Your task to perform on an android device: install app "Chime – Mobile Banking" Image 0: 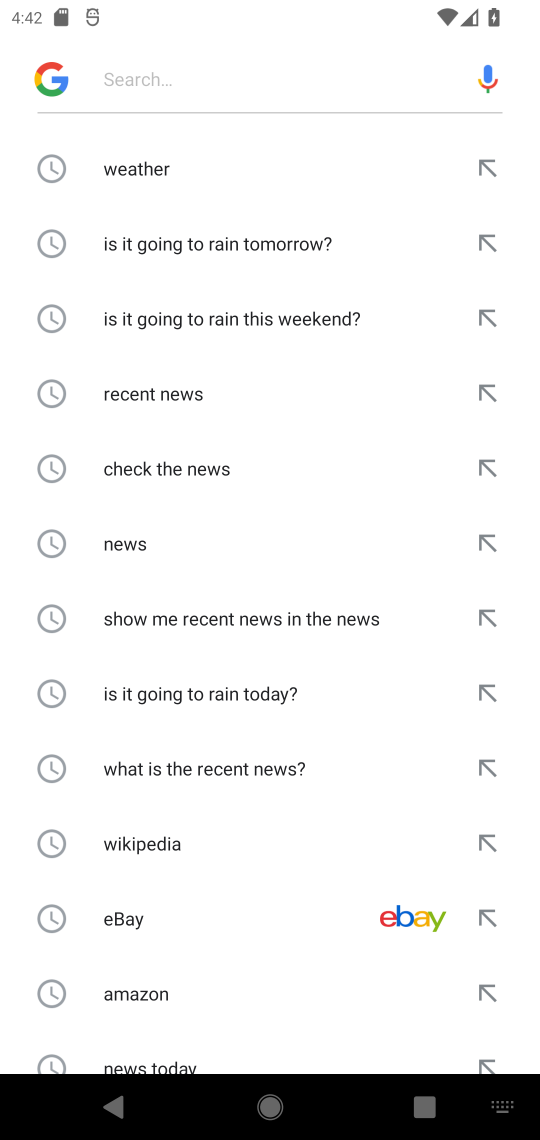
Step 0: press home button
Your task to perform on an android device: install app "Chime – Mobile Banking" Image 1: 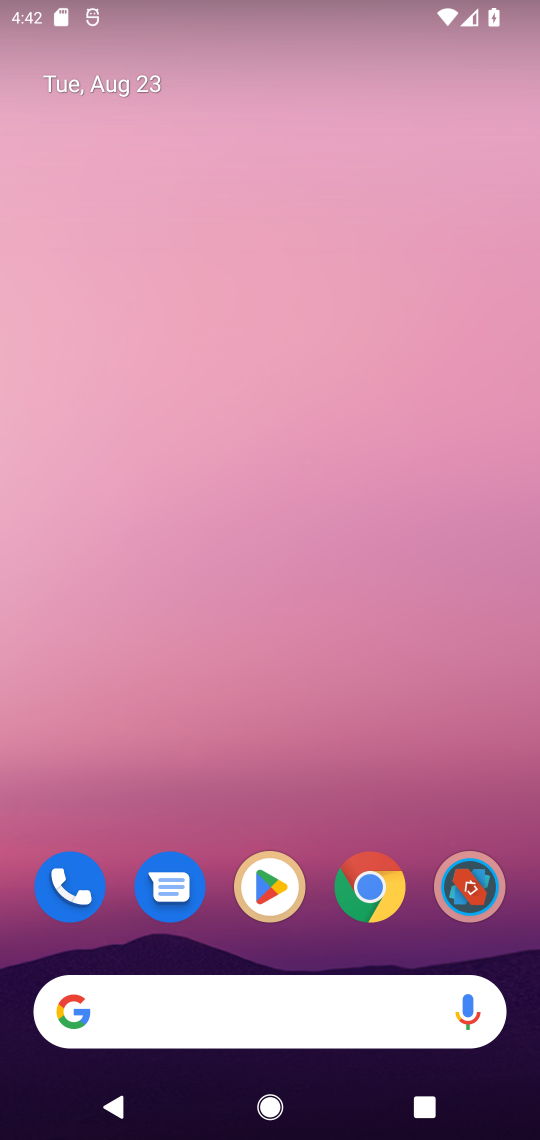
Step 1: click (274, 883)
Your task to perform on an android device: install app "Chime – Mobile Banking" Image 2: 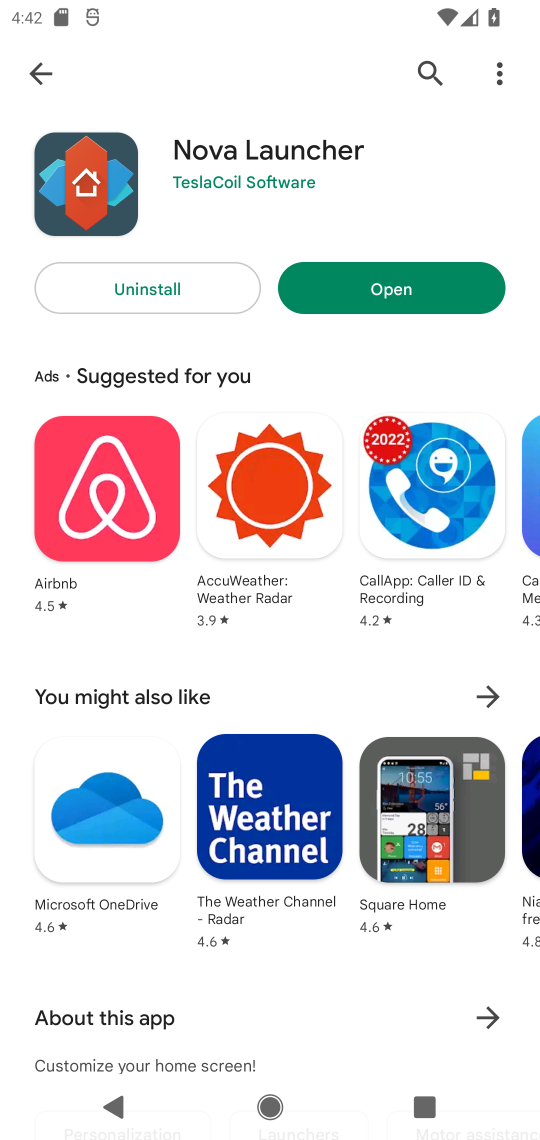
Step 2: click (33, 82)
Your task to perform on an android device: install app "Chime – Mobile Banking" Image 3: 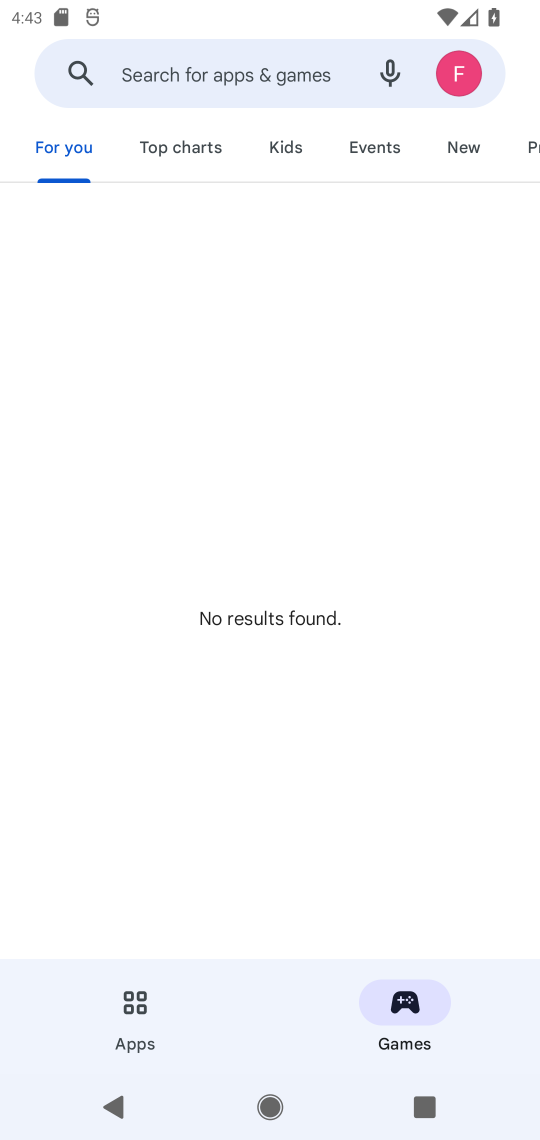
Step 3: click (196, 71)
Your task to perform on an android device: install app "Chime – Mobile Banking" Image 4: 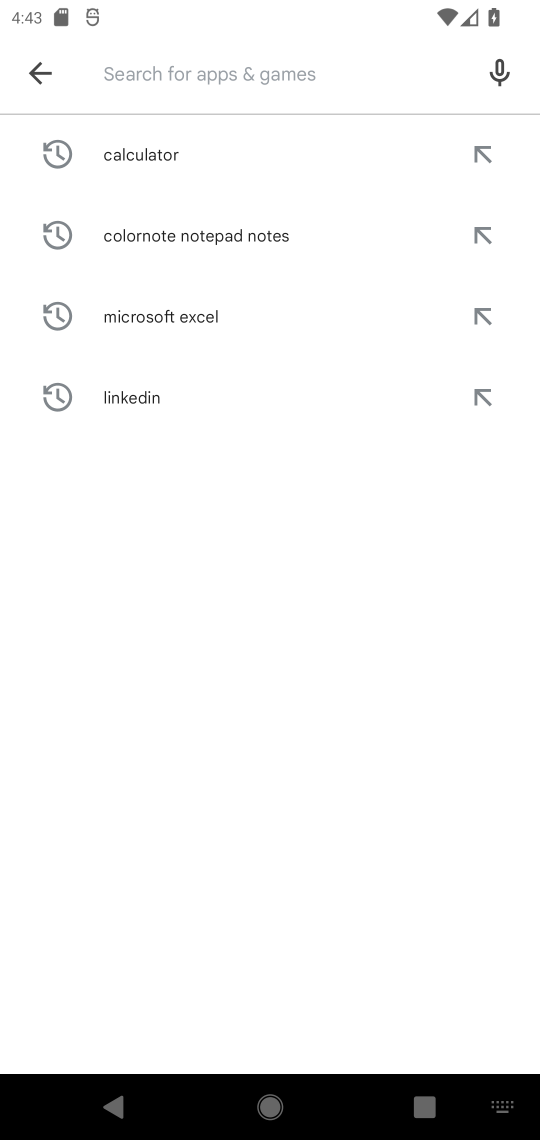
Step 4: type "Chime – Mobile Banking"
Your task to perform on an android device: install app "Chime – Mobile Banking" Image 5: 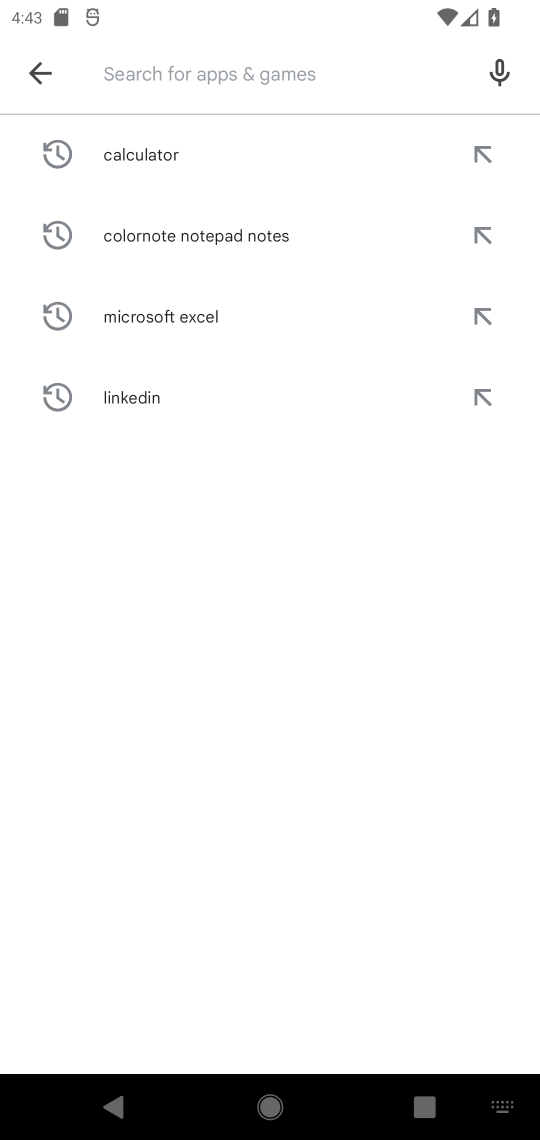
Step 5: task complete